Your task to perform on an android device: Search for the best rated 150-piece drill bit set on Aliexpress. Image 0: 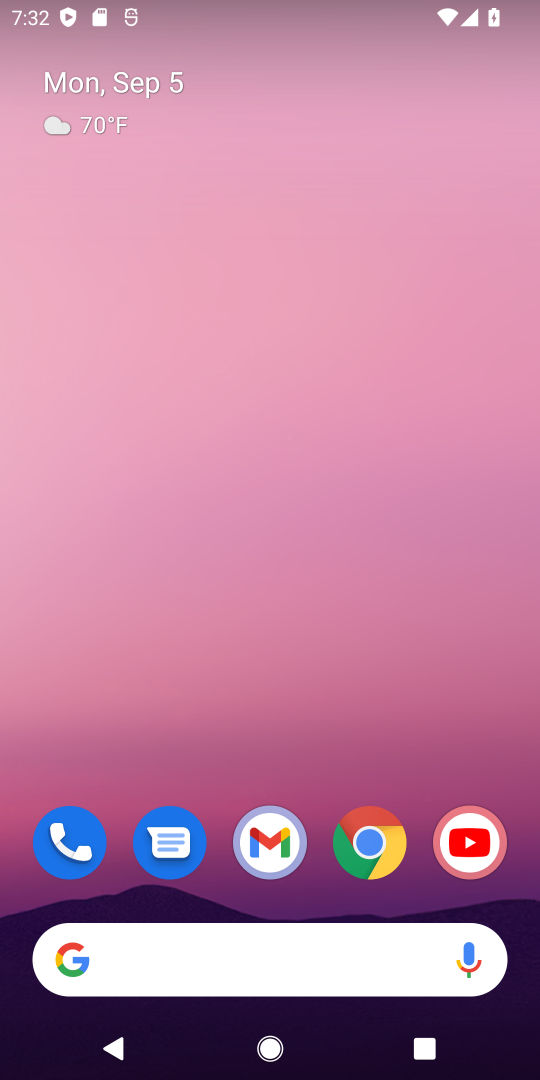
Step 0: click (370, 844)
Your task to perform on an android device: Search for the best rated 150-piece drill bit set on Aliexpress. Image 1: 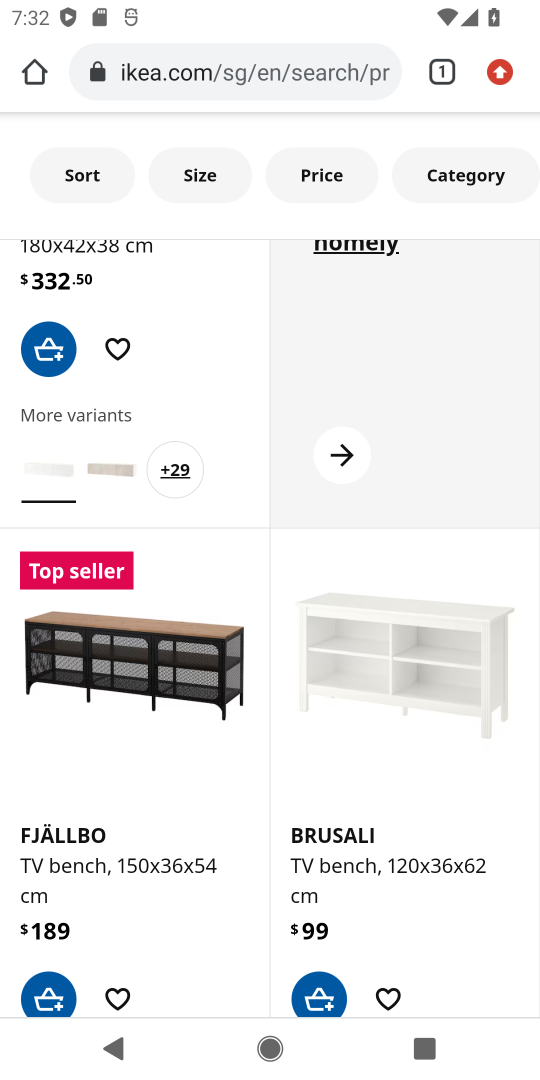
Step 1: click (295, 80)
Your task to perform on an android device: Search for the best rated 150-piece drill bit set on Aliexpress. Image 2: 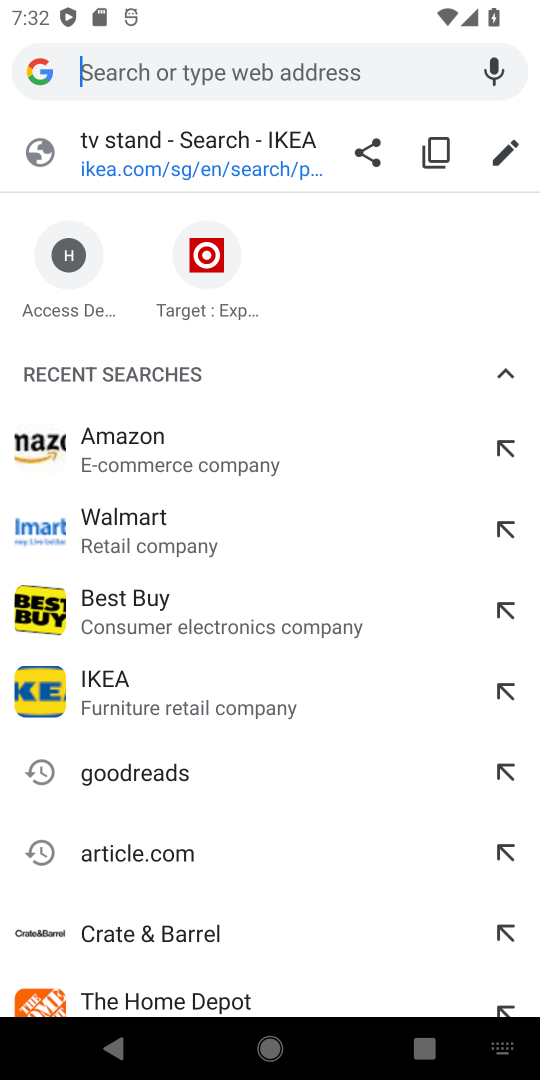
Step 2: type "Aliexpress"
Your task to perform on an android device: Search for the best rated 150-piece drill bit set on Aliexpress. Image 3: 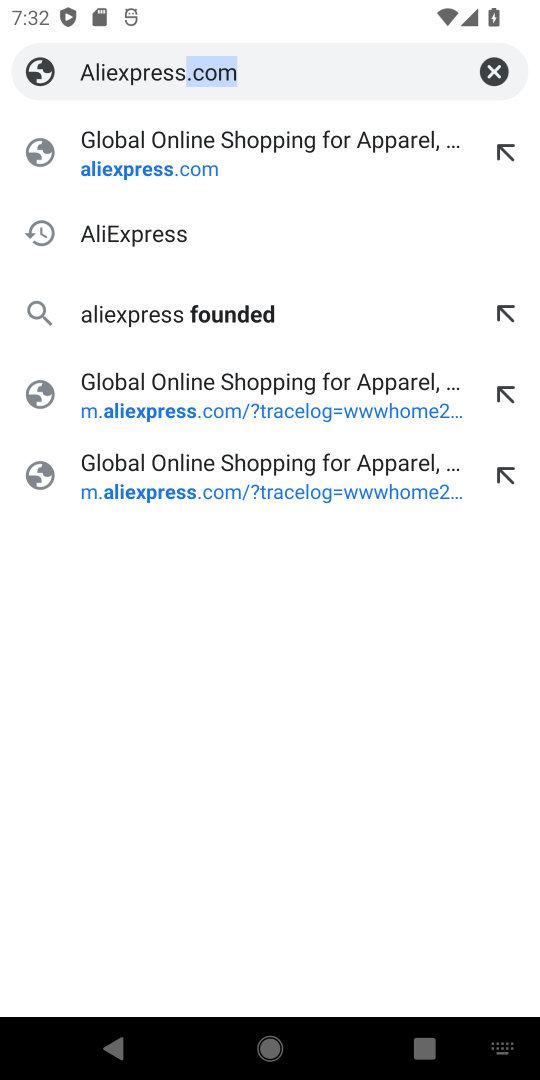
Step 3: click (163, 240)
Your task to perform on an android device: Search for the best rated 150-piece drill bit set on Aliexpress. Image 4: 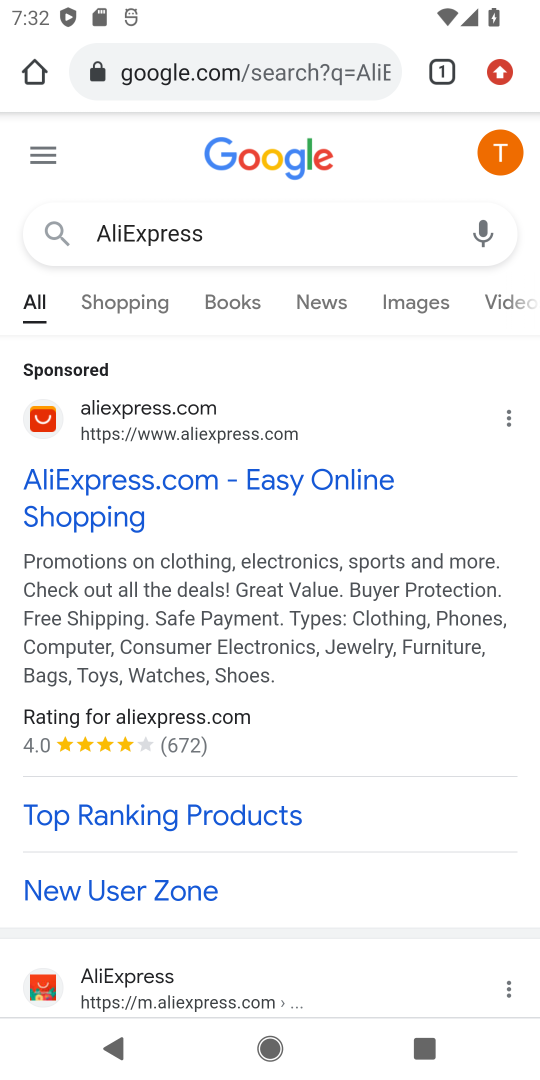
Step 4: drag from (328, 921) to (427, 676)
Your task to perform on an android device: Search for the best rated 150-piece drill bit set on Aliexpress. Image 5: 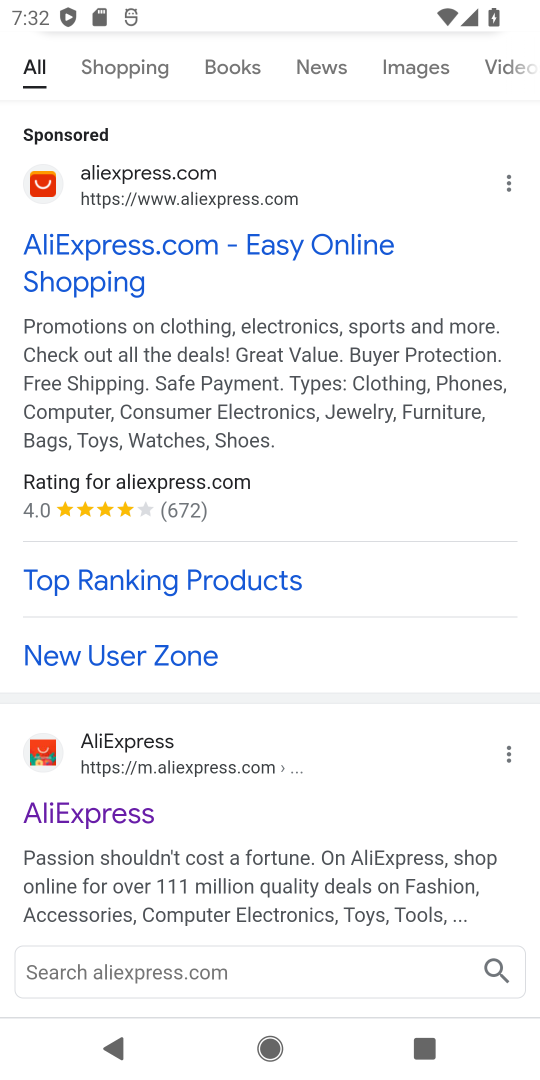
Step 5: click (165, 828)
Your task to perform on an android device: Search for the best rated 150-piece drill bit set on Aliexpress. Image 6: 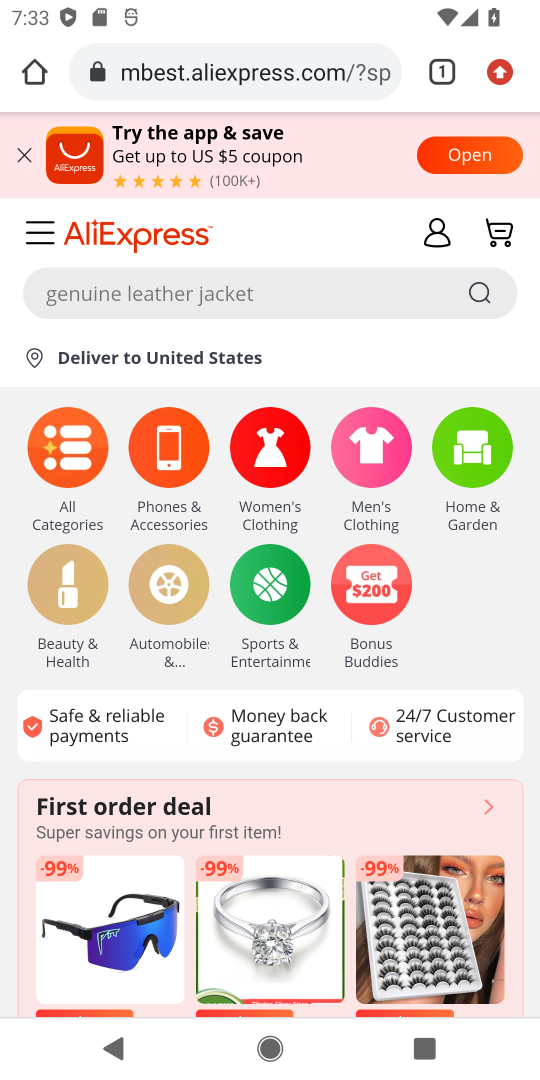
Step 6: click (208, 296)
Your task to perform on an android device: Search for the best rated 150-piece drill bit set on Aliexpress. Image 7: 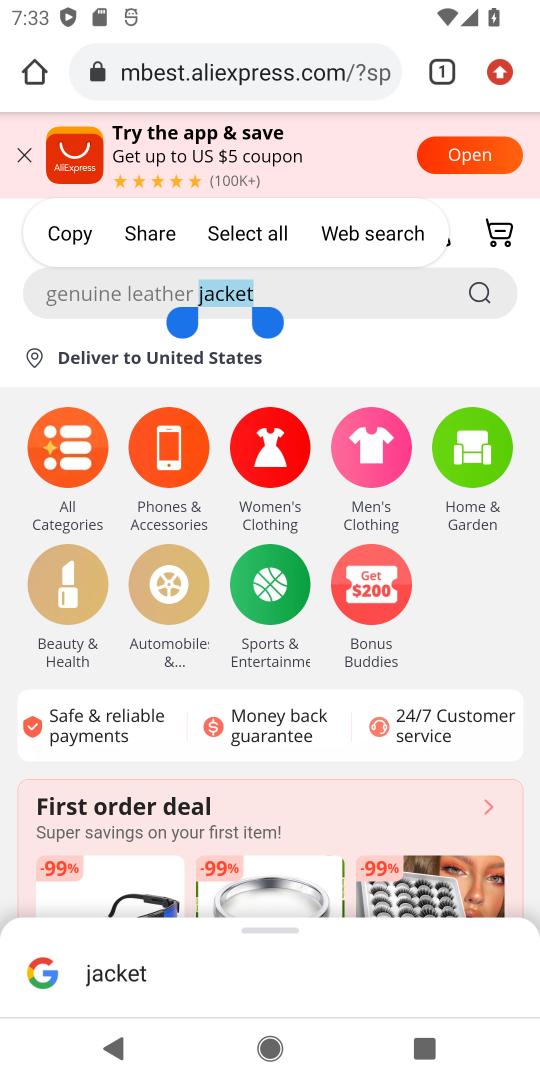
Step 7: click (312, 292)
Your task to perform on an android device: Search for the best rated 150-piece drill bit set on Aliexpress. Image 8: 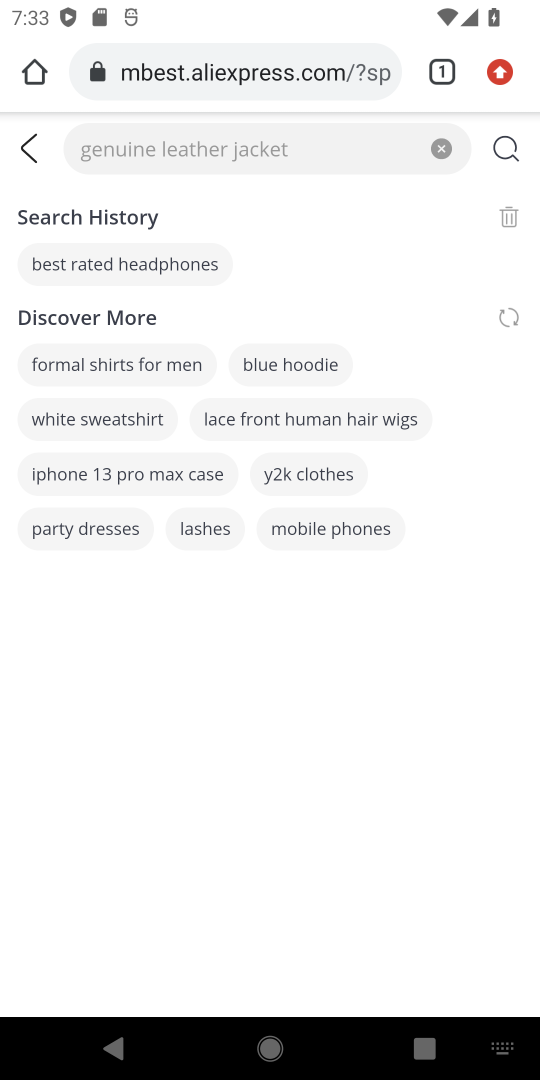
Step 8: type "best rated 150-piece drill bit set"
Your task to perform on an android device: Search for the best rated 150-piece drill bit set on Aliexpress. Image 9: 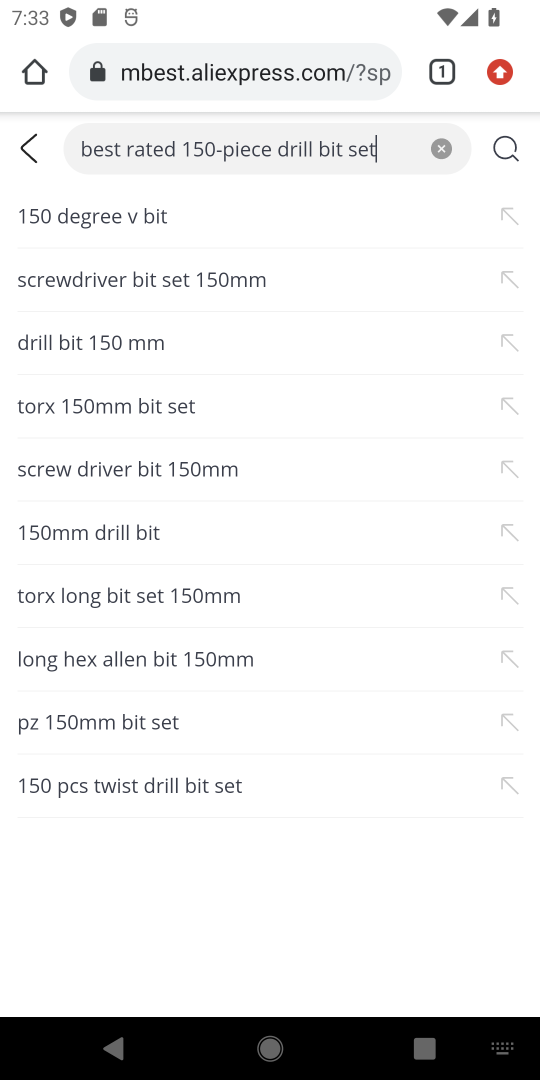
Step 9: click (500, 159)
Your task to perform on an android device: Search for the best rated 150-piece drill bit set on Aliexpress. Image 10: 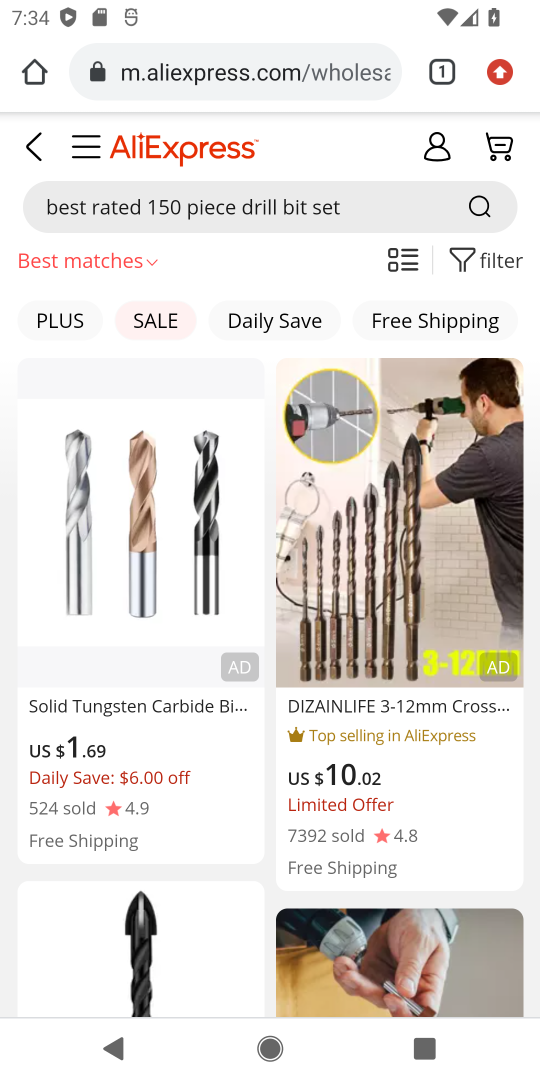
Step 10: drag from (233, 946) to (202, 537)
Your task to perform on an android device: Search for the best rated 150-piece drill bit set on Aliexpress. Image 11: 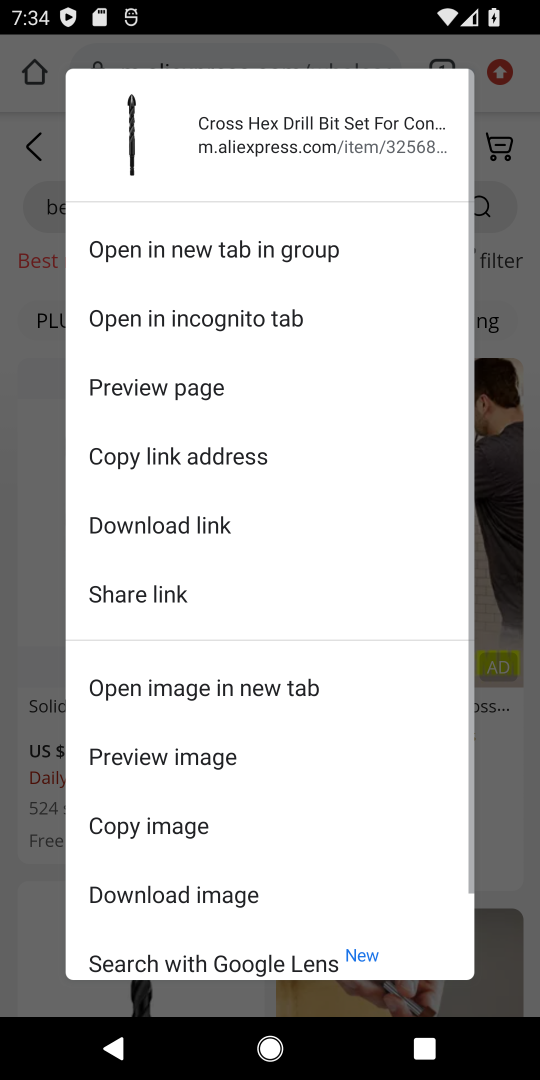
Step 11: click (525, 287)
Your task to perform on an android device: Search for the best rated 150-piece drill bit set on Aliexpress. Image 12: 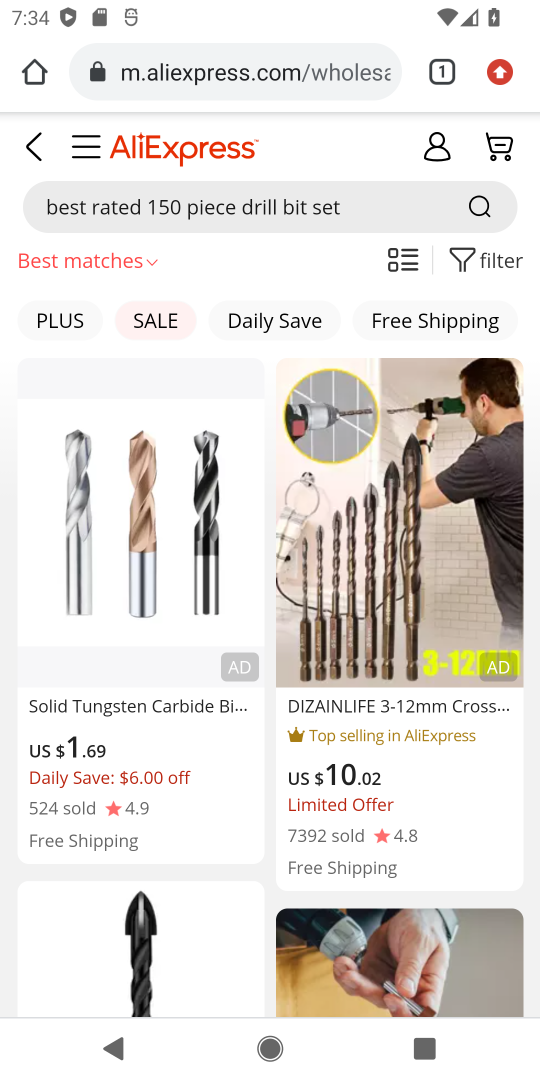
Step 12: task complete